Your task to perform on an android device: turn on the 12-hour format for clock Image 0: 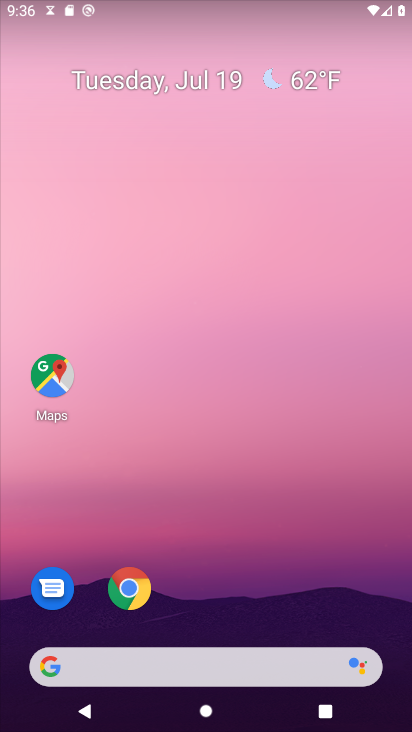
Step 0: drag from (170, 606) to (190, 149)
Your task to perform on an android device: turn on the 12-hour format for clock Image 1: 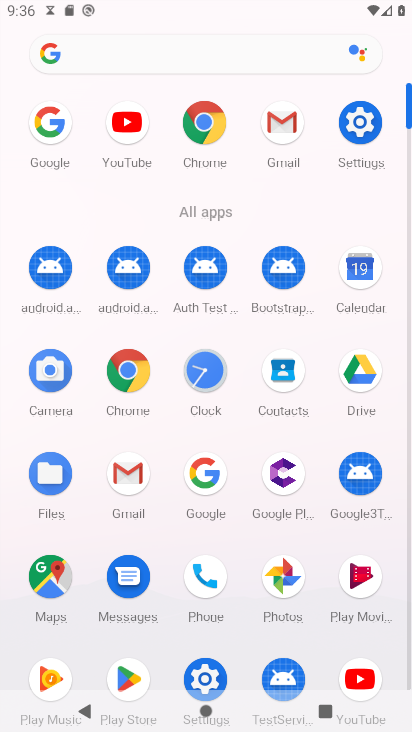
Step 1: click (208, 382)
Your task to perform on an android device: turn on the 12-hour format for clock Image 2: 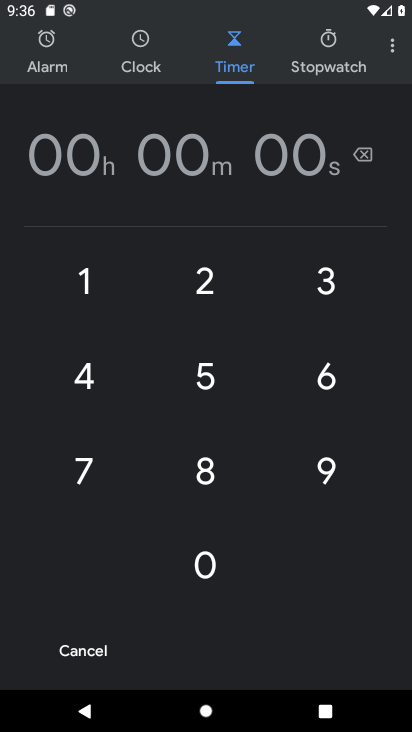
Step 2: click (389, 45)
Your task to perform on an android device: turn on the 12-hour format for clock Image 3: 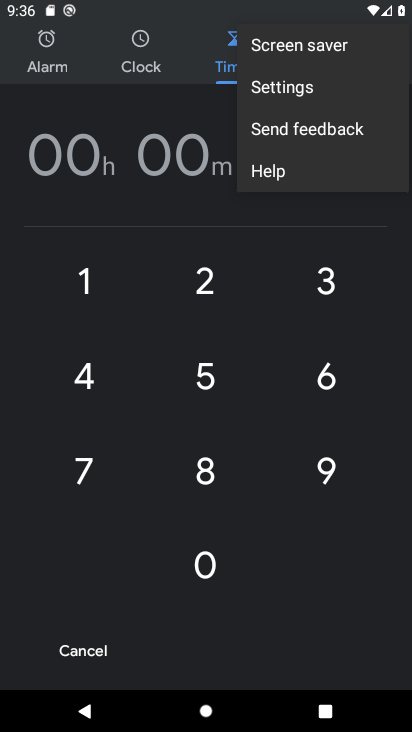
Step 3: click (317, 88)
Your task to perform on an android device: turn on the 12-hour format for clock Image 4: 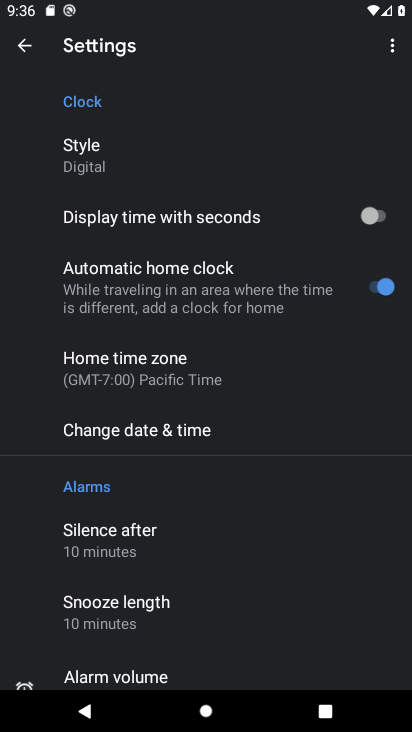
Step 4: click (168, 423)
Your task to perform on an android device: turn on the 12-hour format for clock Image 5: 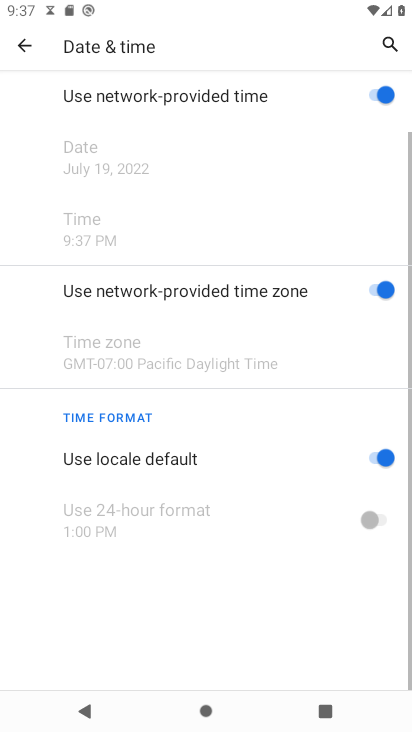
Step 5: task complete